Your task to perform on an android device: Open Amazon Image 0: 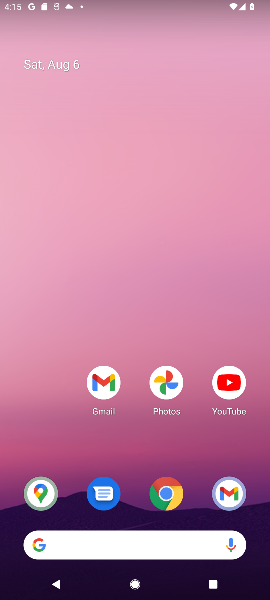
Step 0: drag from (118, 508) to (111, 246)
Your task to perform on an android device: Open Amazon Image 1: 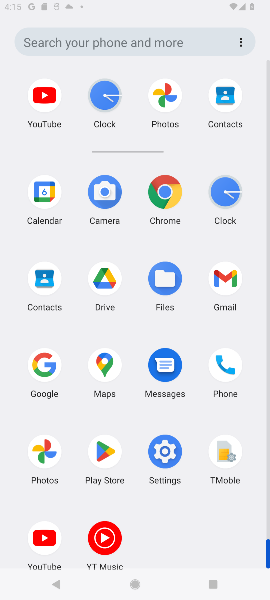
Step 1: drag from (159, 494) to (126, 237)
Your task to perform on an android device: Open Amazon Image 2: 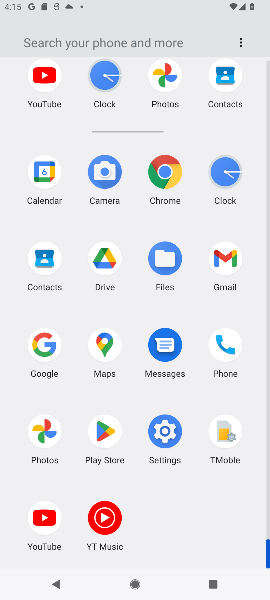
Step 2: click (165, 168)
Your task to perform on an android device: Open Amazon Image 3: 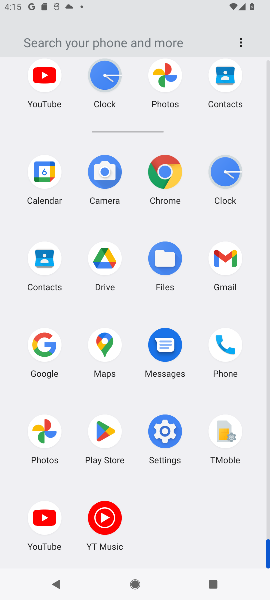
Step 3: click (165, 168)
Your task to perform on an android device: Open Amazon Image 4: 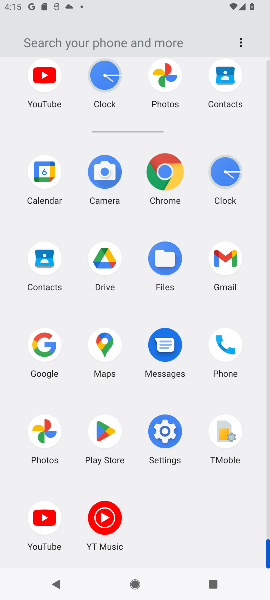
Step 4: click (165, 168)
Your task to perform on an android device: Open Amazon Image 5: 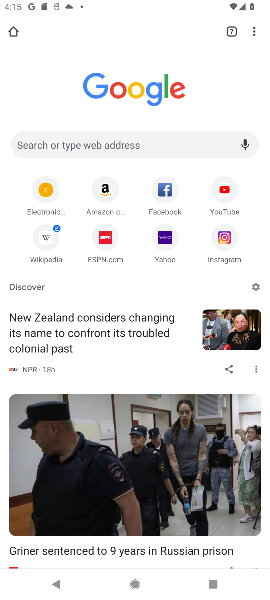
Step 5: click (43, 240)
Your task to perform on an android device: Open Amazon Image 6: 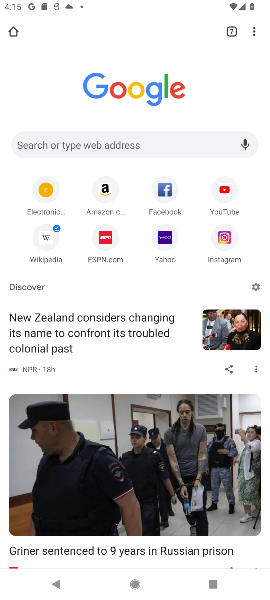
Step 6: click (43, 240)
Your task to perform on an android device: Open Amazon Image 7: 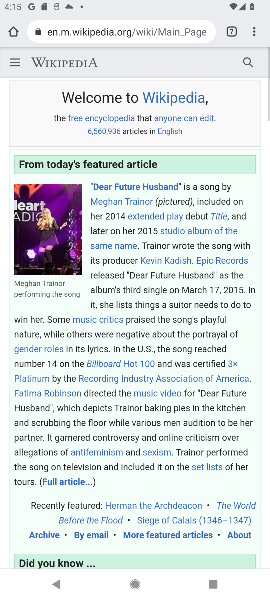
Step 7: press back button
Your task to perform on an android device: Open Amazon Image 8: 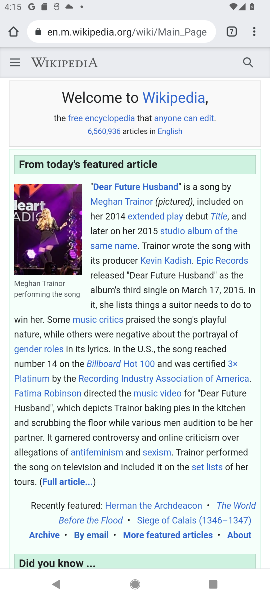
Step 8: press back button
Your task to perform on an android device: Open Amazon Image 9: 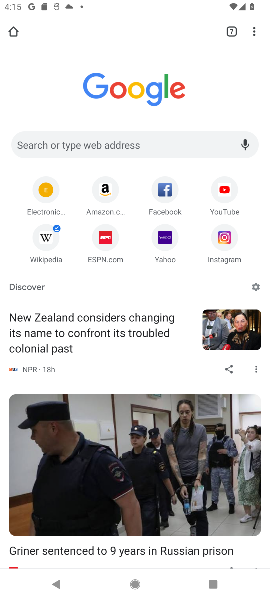
Step 9: click (247, 32)
Your task to perform on an android device: Open Amazon Image 10: 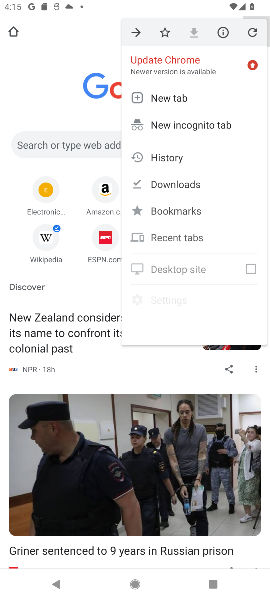
Step 10: click (110, 190)
Your task to perform on an android device: Open Amazon Image 11: 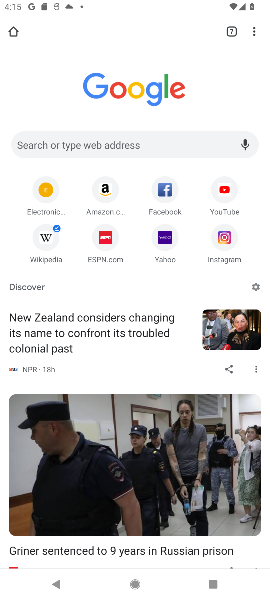
Step 11: click (108, 190)
Your task to perform on an android device: Open Amazon Image 12: 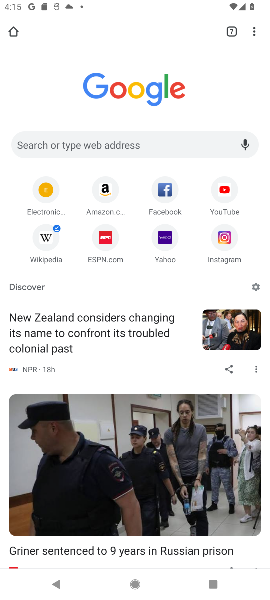
Step 12: click (108, 190)
Your task to perform on an android device: Open Amazon Image 13: 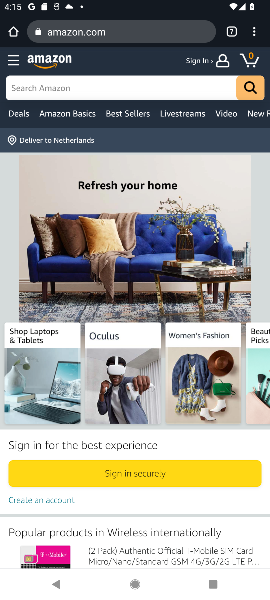
Step 13: task complete